Your task to perform on an android device: Open sound settings Image 0: 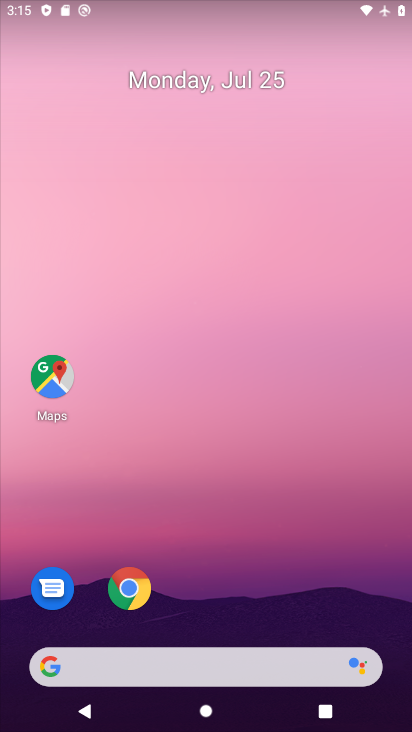
Step 0: drag from (244, 696) to (239, 84)
Your task to perform on an android device: Open sound settings Image 1: 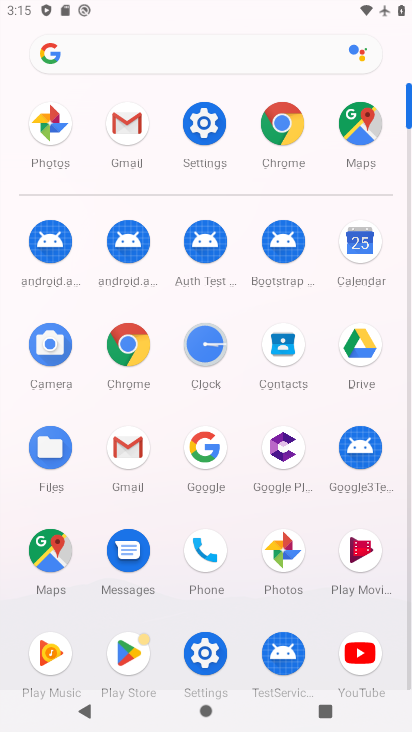
Step 1: click (198, 116)
Your task to perform on an android device: Open sound settings Image 2: 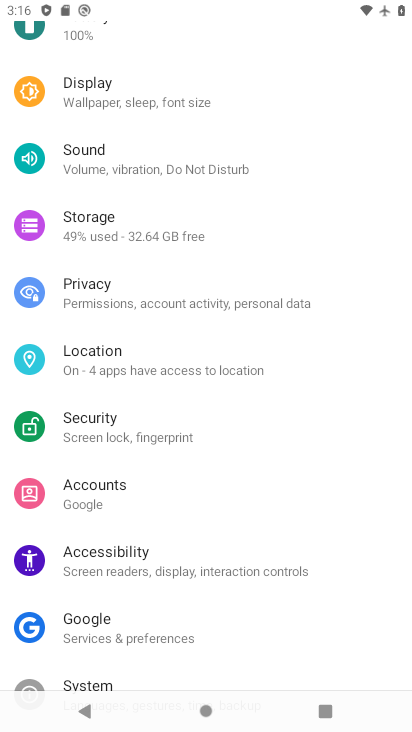
Step 2: click (89, 146)
Your task to perform on an android device: Open sound settings Image 3: 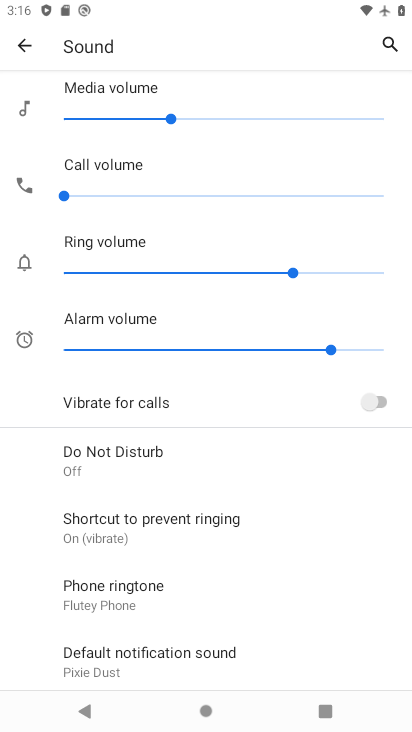
Step 3: task complete